Your task to perform on an android device: add a contact in the contacts app Image 0: 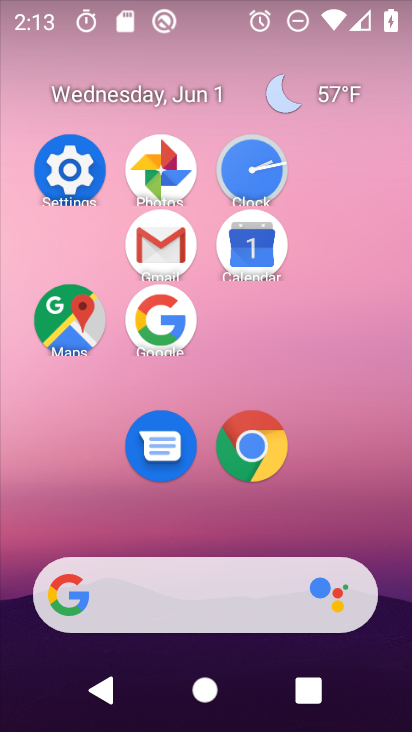
Step 0: drag from (377, 513) to (386, 12)
Your task to perform on an android device: add a contact in the contacts app Image 1: 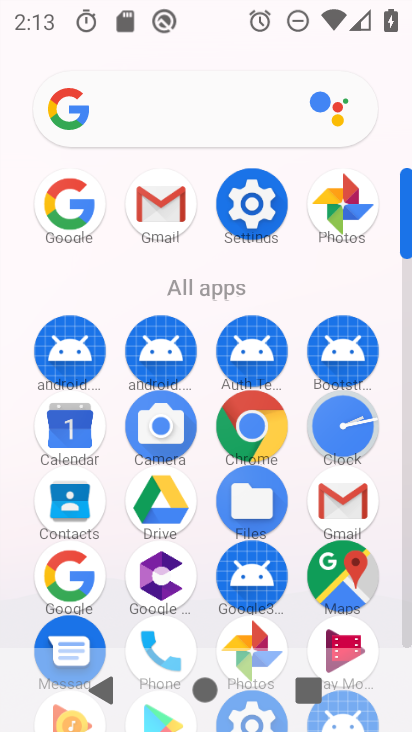
Step 1: click (66, 514)
Your task to perform on an android device: add a contact in the contacts app Image 2: 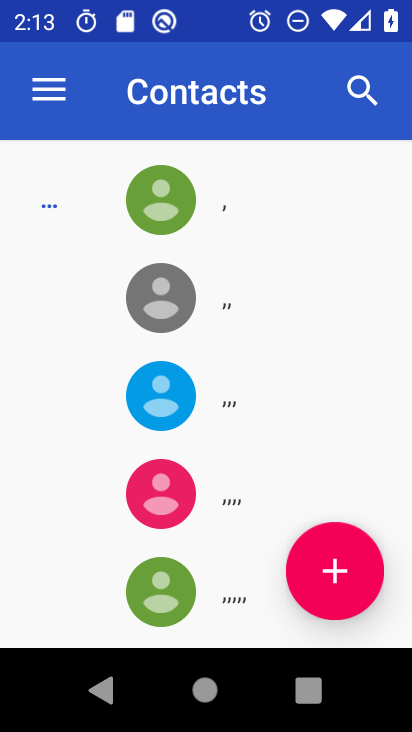
Step 2: click (366, 626)
Your task to perform on an android device: add a contact in the contacts app Image 3: 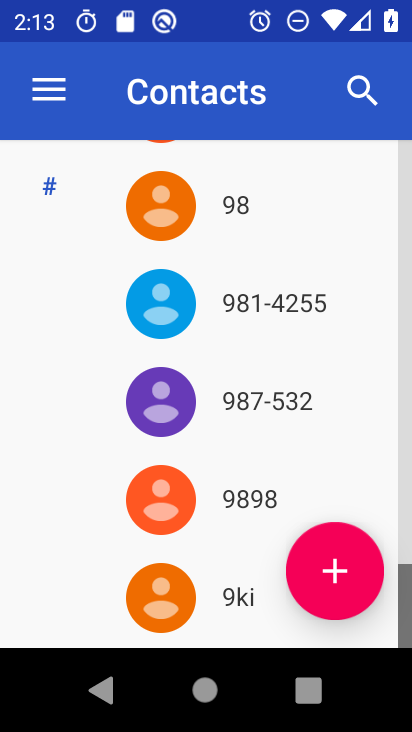
Step 3: click (356, 579)
Your task to perform on an android device: add a contact in the contacts app Image 4: 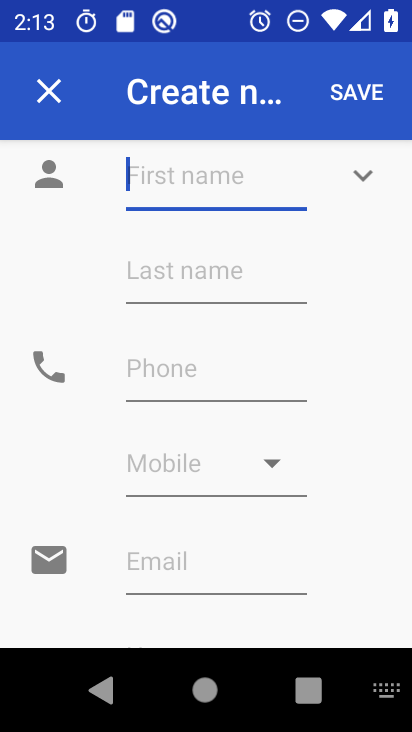
Step 4: type ""
Your task to perform on an android device: add a contact in the contacts app Image 5: 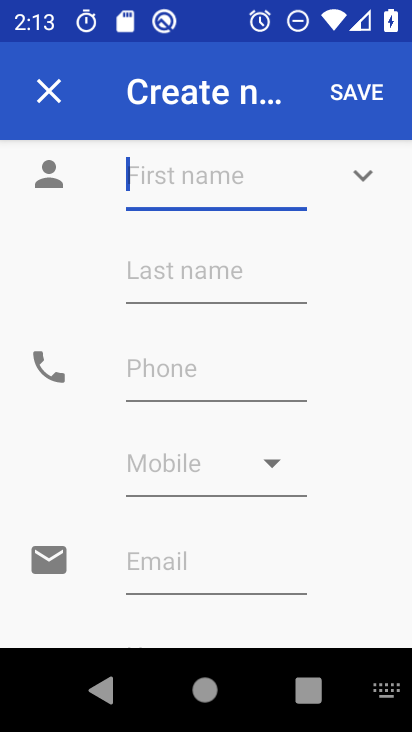
Step 5: type "ttxz"
Your task to perform on an android device: add a contact in the contacts app Image 6: 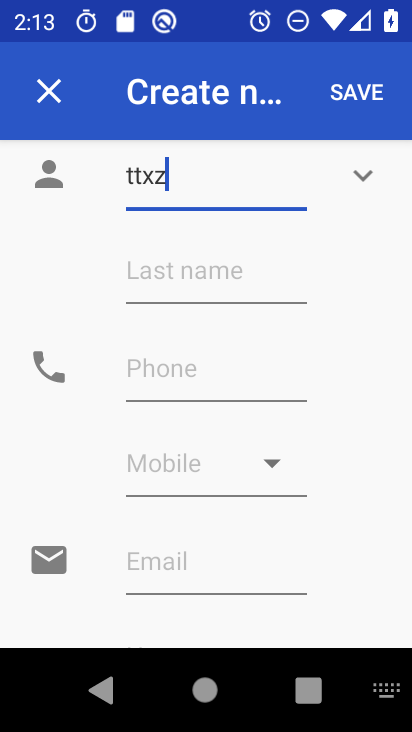
Step 6: click (174, 376)
Your task to perform on an android device: add a contact in the contacts app Image 7: 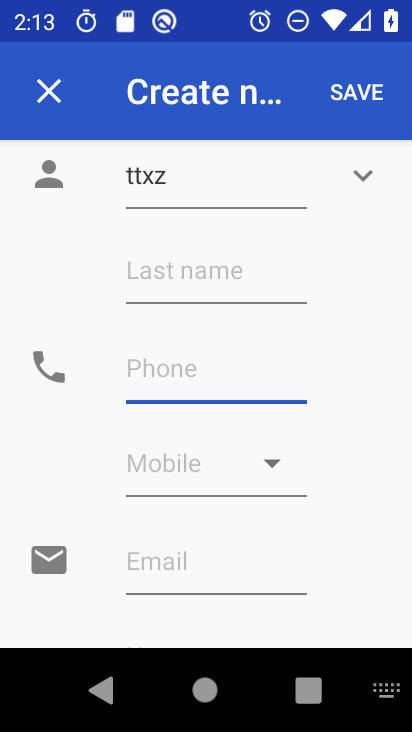
Step 7: type "9090787886"
Your task to perform on an android device: add a contact in the contacts app Image 8: 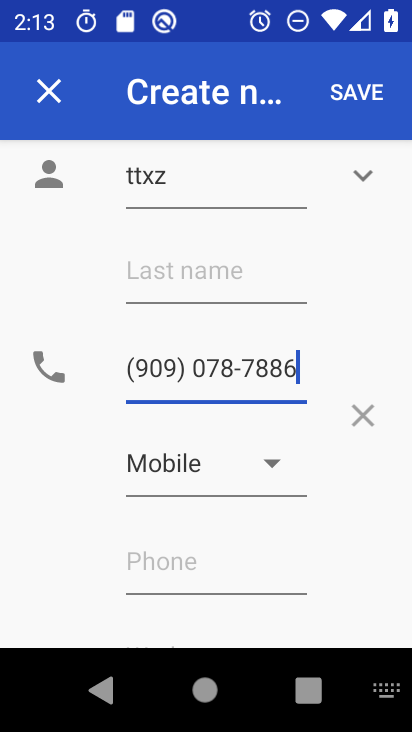
Step 8: click (389, 85)
Your task to perform on an android device: add a contact in the contacts app Image 9: 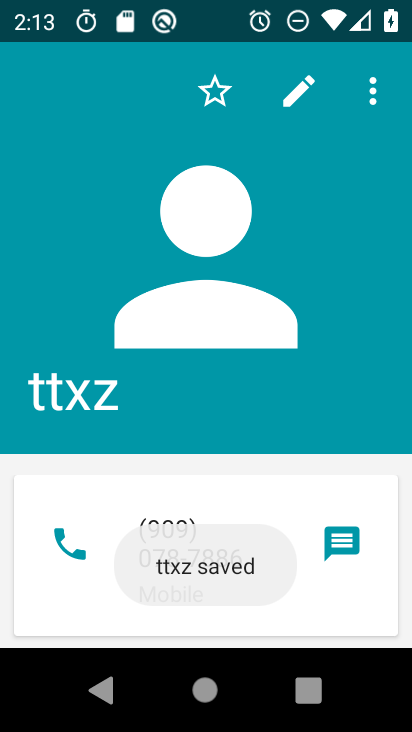
Step 9: task complete